Your task to perform on an android device: Go to internet settings Image 0: 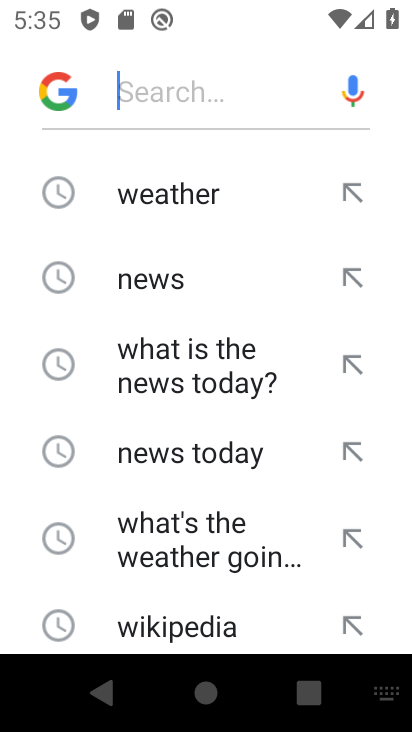
Step 0: press home button
Your task to perform on an android device: Go to internet settings Image 1: 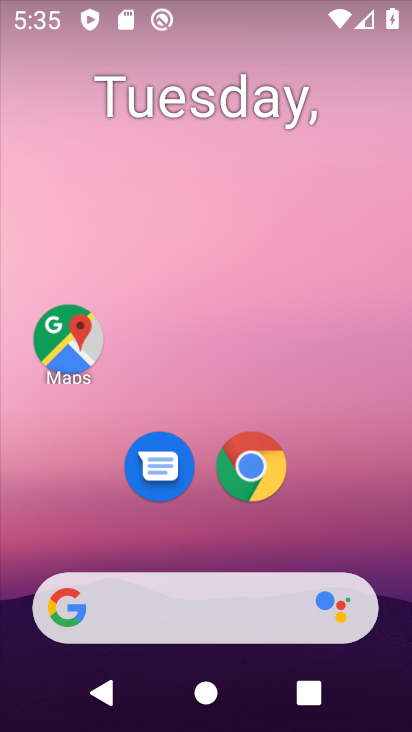
Step 1: drag from (341, 535) to (349, 0)
Your task to perform on an android device: Go to internet settings Image 2: 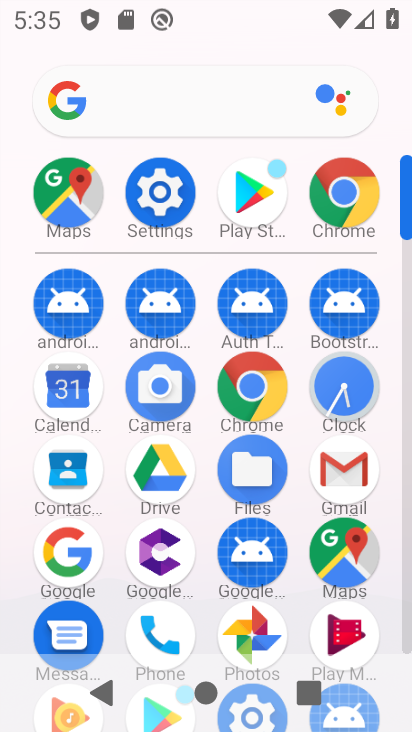
Step 2: click (179, 176)
Your task to perform on an android device: Go to internet settings Image 3: 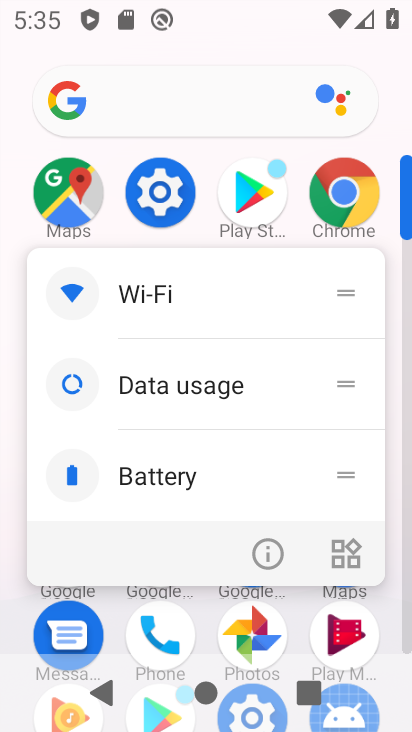
Step 3: click (179, 176)
Your task to perform on an android device: Go to internet settings Image 4: 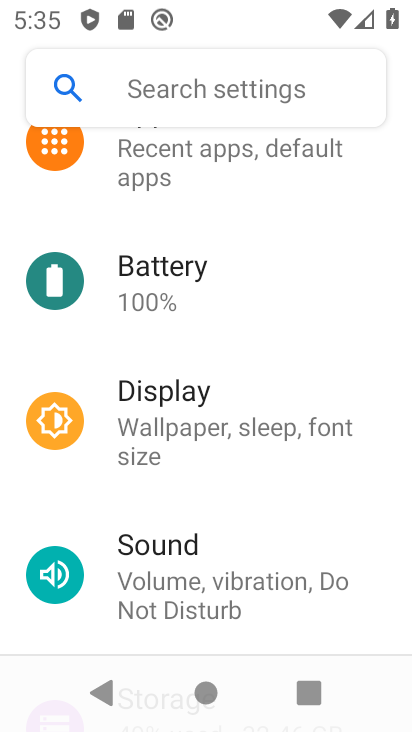
Step 4: drag from (223, 138) to (228, 723)
Your task to perform on an android device: Go to internet settings Image 5: 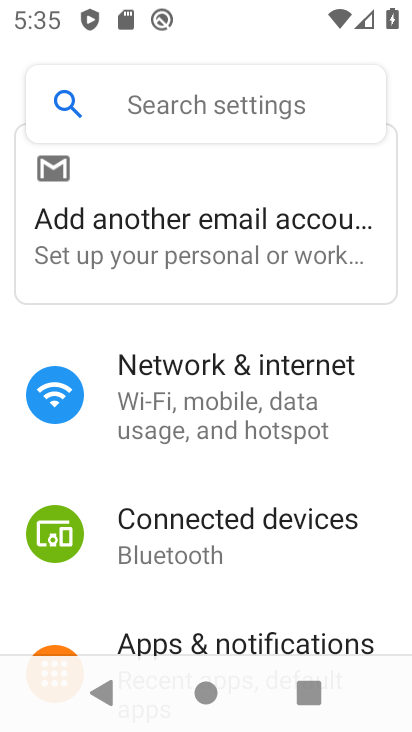
Step 5: click (297, 404)
Your task to perform on an android device: Go to internet settings Image 6: 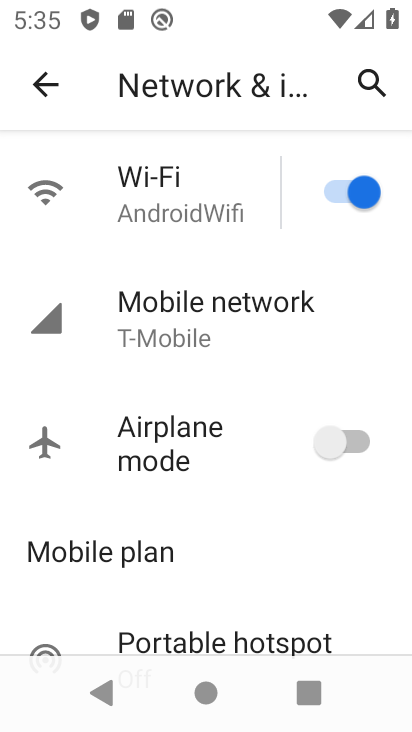
Step 6: task complete